Your task to perform on an android device: Go to ESPN.com Image 0: 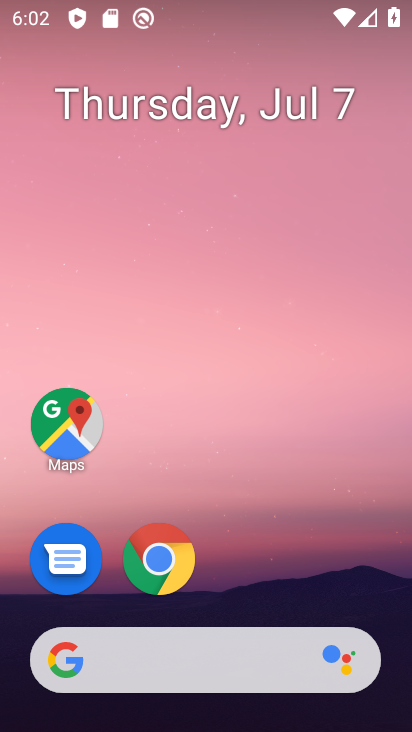
Step 0: drag from (279, 599) to (313, 57)
Your task to perform on an android device: Go to ESPN.com Image 1: 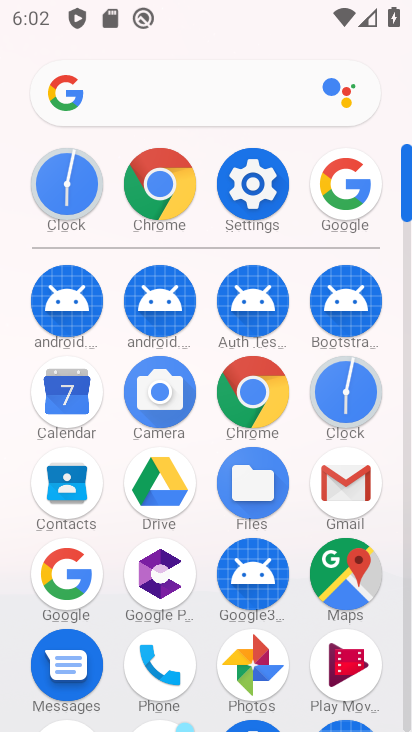
Step 1: click (171, 213)
Your task to perform on an android device: Go to ESPN.com Image 2: 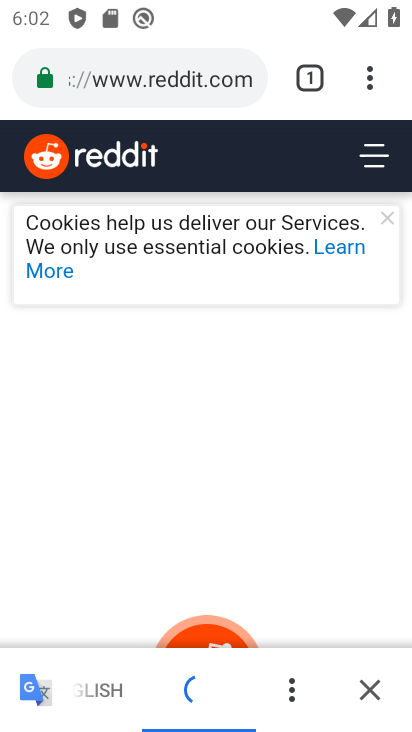
Step 2: click (203, 80)
Your task to perform on an android device: Go to ESPN.com Image 3: 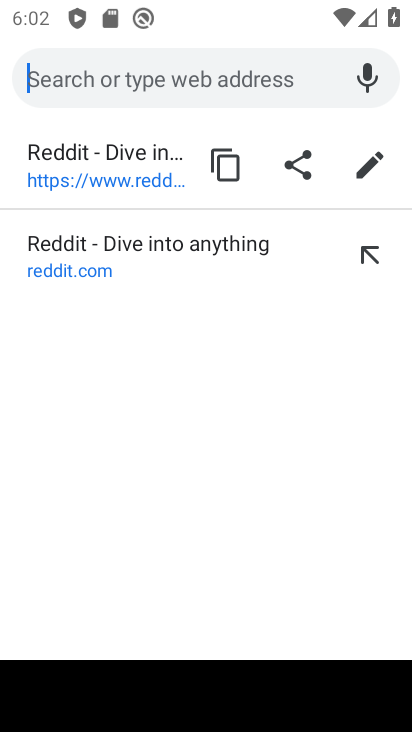
Step 3: type "espn.com"
Your task to perform on an android device: Go to ESPN.com Image 4: 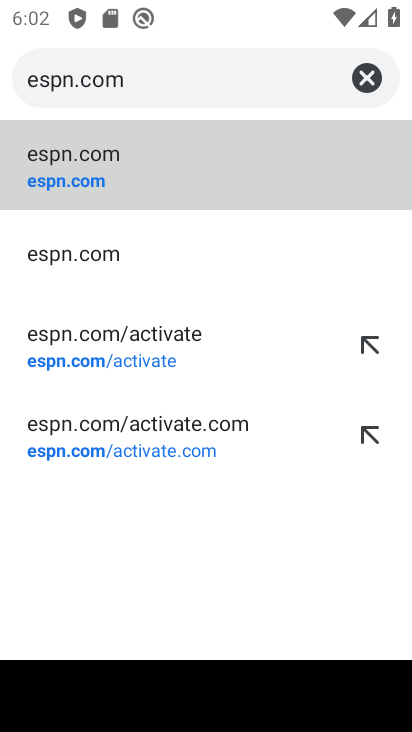
Step 4: click (127, 190)
Your task to perform on an android device: Go to ESPN.com Image 5: 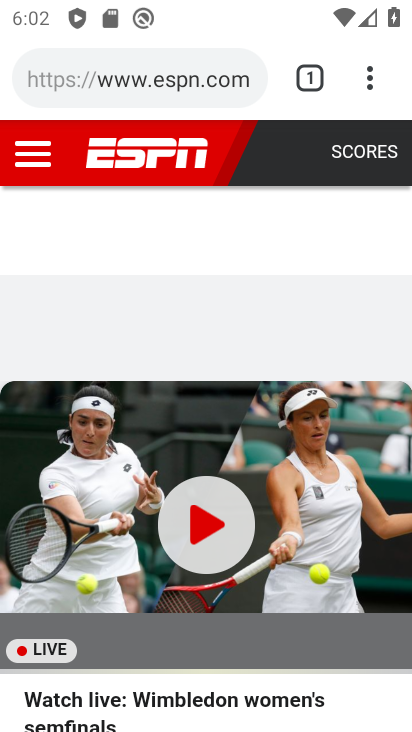
Step 5: task complete